Your task to perform on an android device: Open eBay Image 0: 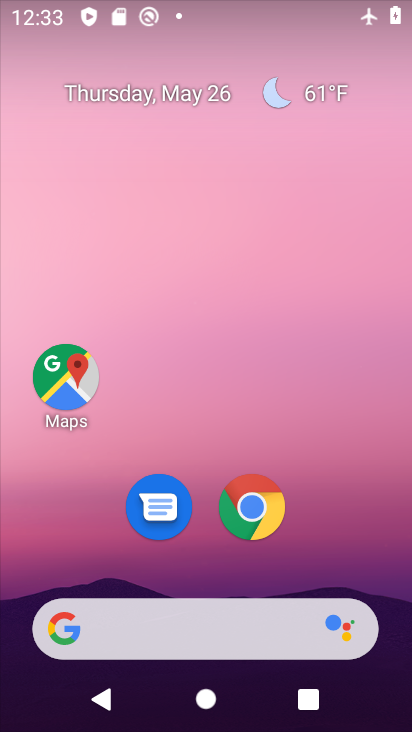
Step 0: click (235, 623)
Your task to perform on an android device: Open eBay Image 1: 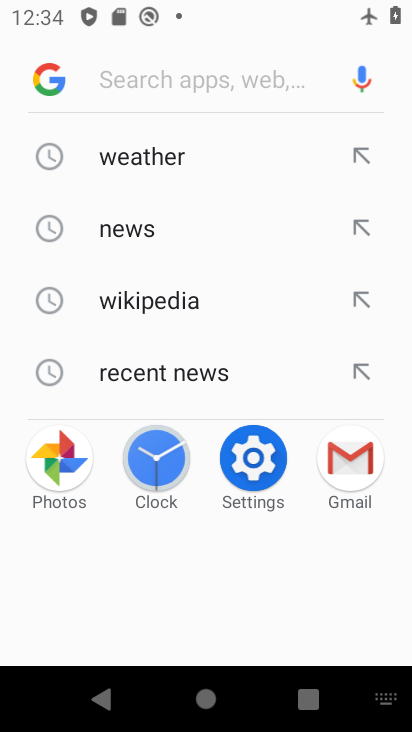
Step 1: type "ebay.com"
Your task to perform on an android device: Open eBay Image 2: 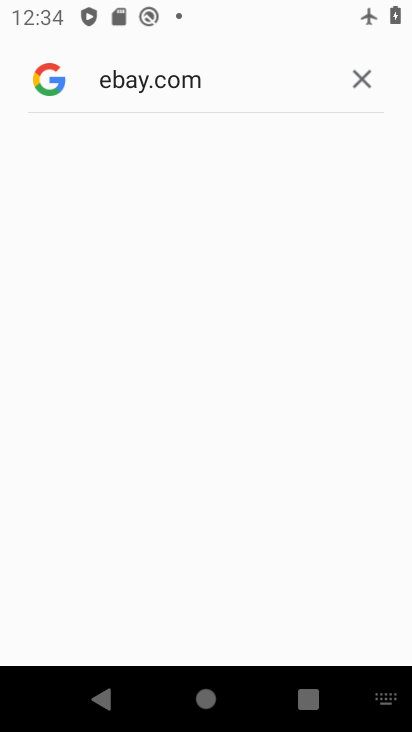
Step 2: task complete